Your task to perform on an android device: What is the recent news? Image 0: 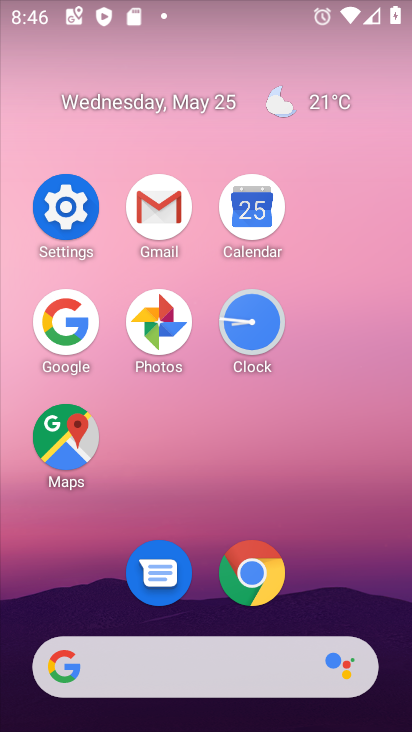
Step 0: click (59, 328)
Your task to perform on an android device: What is the recent news? Image 1: 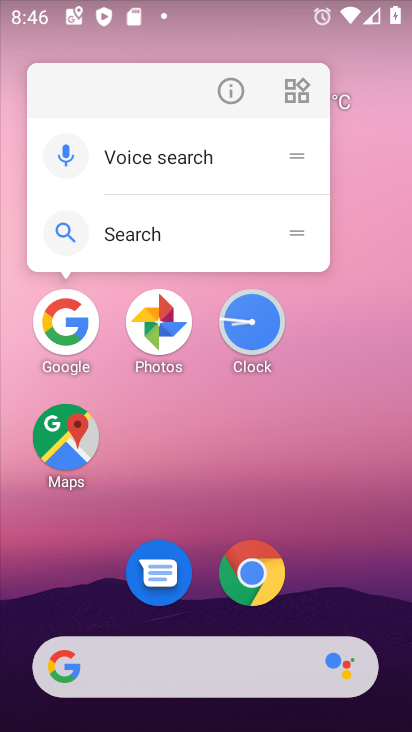
Step 1: click (81, 361)
Your task to perform on an android device: What is the recent news? Image 2: 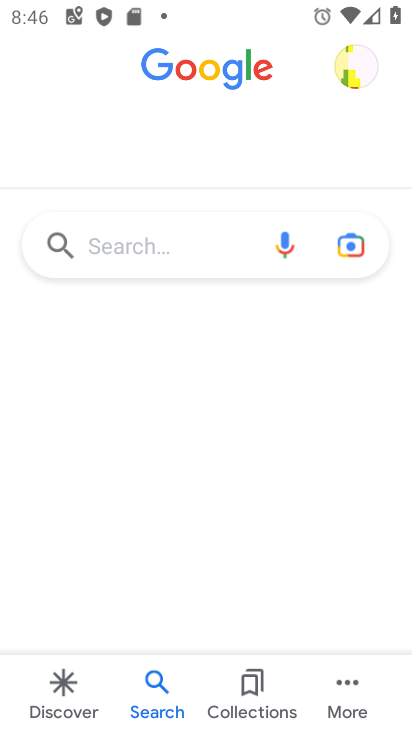
Step 2: click (101, 252)
Your task to perform on an android device: What is the recent news? Image 3: 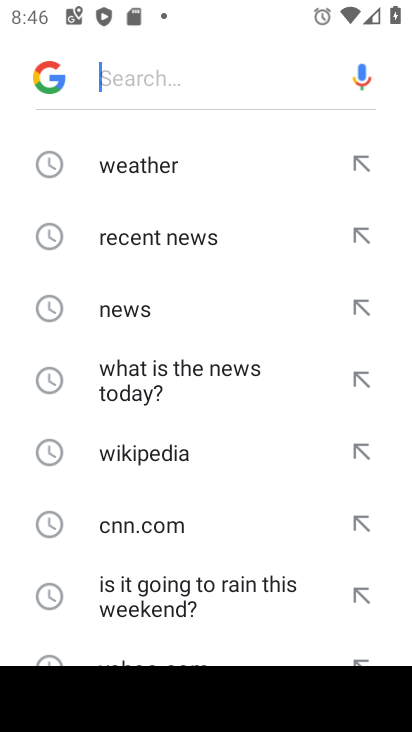
Step 3: click (179, 248)
Your task to perform on an android device: What is the recent news? Image 4: 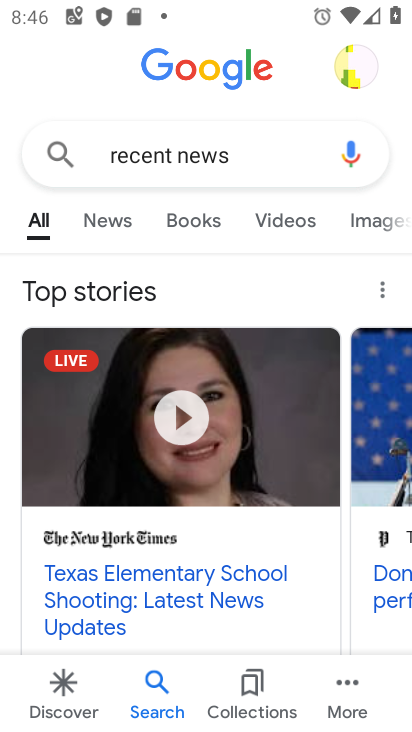
Step 4: task complete